Your task to perform on an android device: open app "LiveIn - Share Your Moment" (install if not already installed) and go to login screen Image 0: 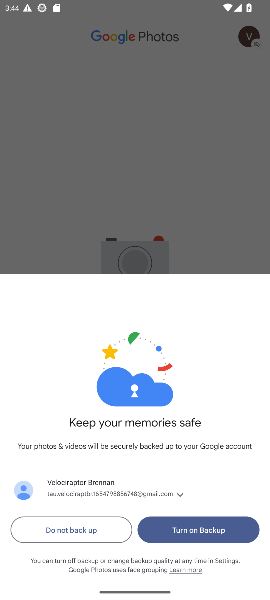
Step 0: task complete